Your task to perform on an android device: change the clock display to analog Image 0: 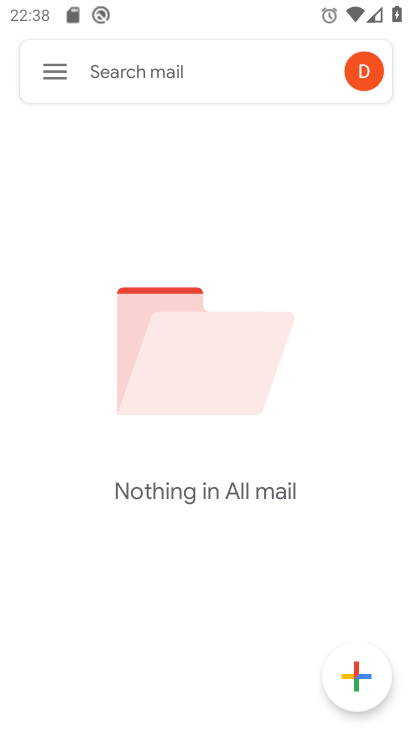
Step 0: press home button
Your task to perform on an android device: change the clock display to analog Image 1: 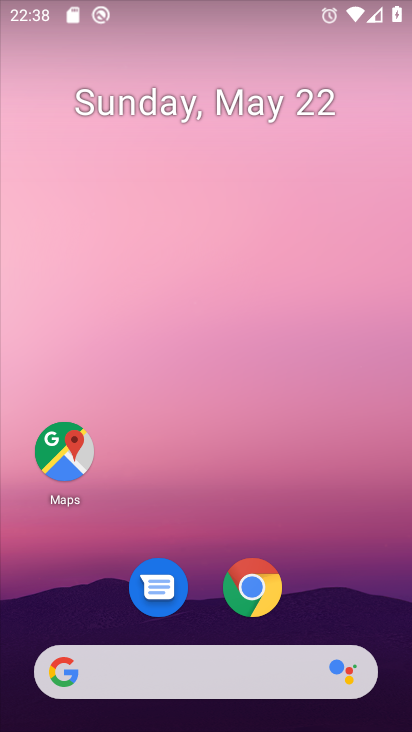
Step 1: drag from (192, 512) to (263, 46)
Your task to perform on an android device: change the clock display to analog Image 2: 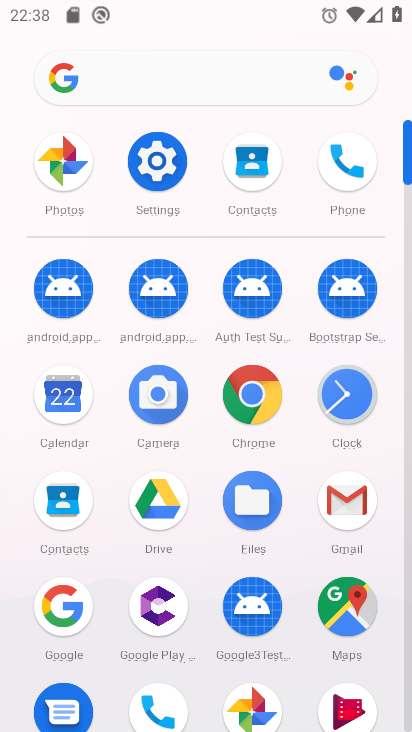
Step 2: click (352, 400)
Your task to perform on an android device: change the clock display to analog Image 3: 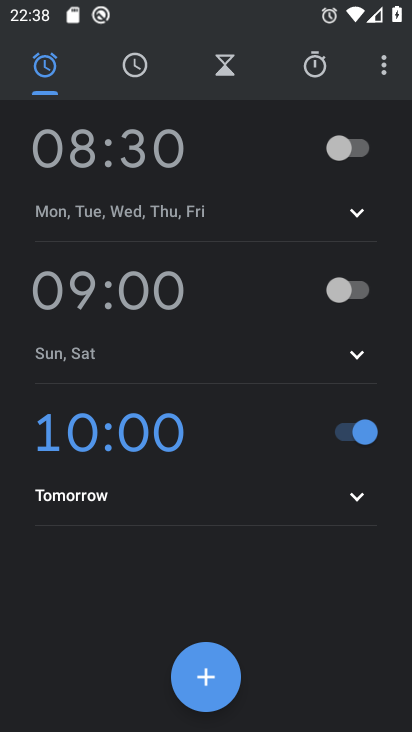
Step 3: click (131, 62)
Your task to perform on an android device: change the clock display to analog Image 4: 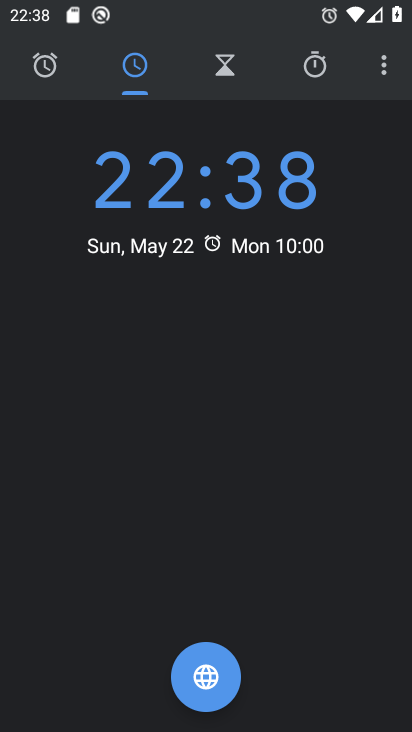
Step 4: click (381, 69)
Your task to perform on an android device: change the clock display to analog Image 5: 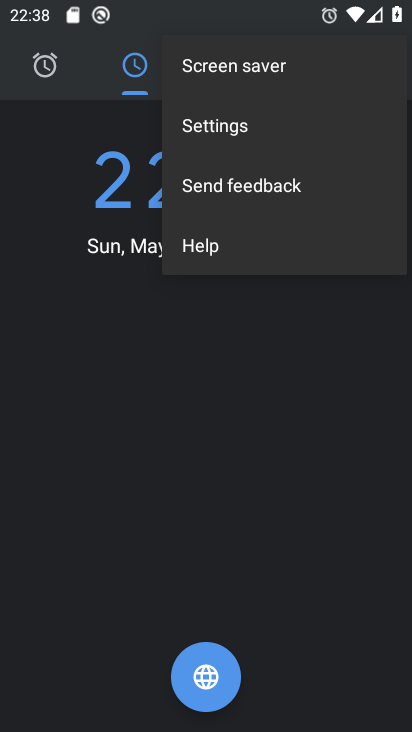
Step 5: click (311, 129)
Your task to perform on an android device: change the clock display to analog Image 6: 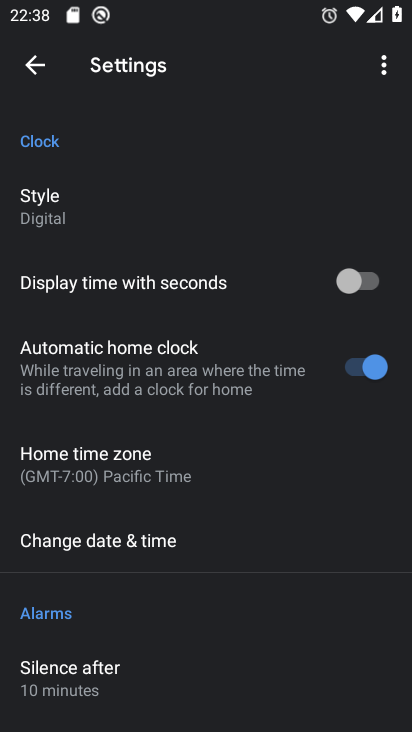
Step 6: click (124, 219)
Your task to perform on an android device: change the clock display to analog Image 7: 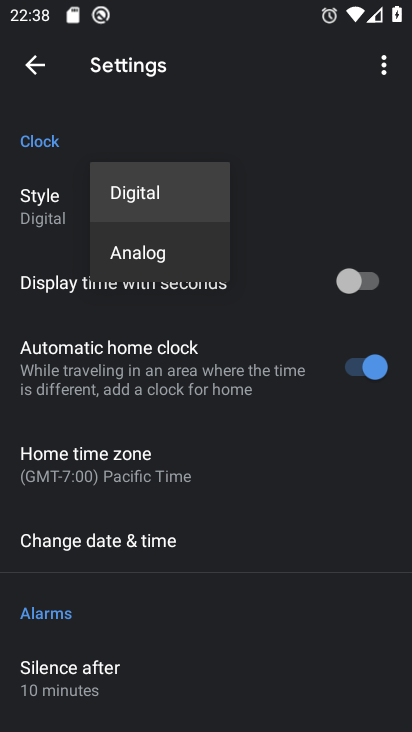
Step 7: click (151, 231)
Your task to perform on an android device: change the clock display to analog Image 8: 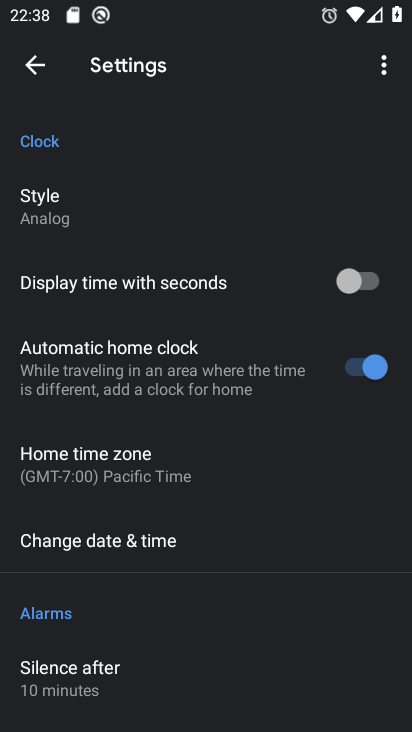
Step 8: click (35, 65)
Your task to perform on an android device: change the clock display to analog Image 9: 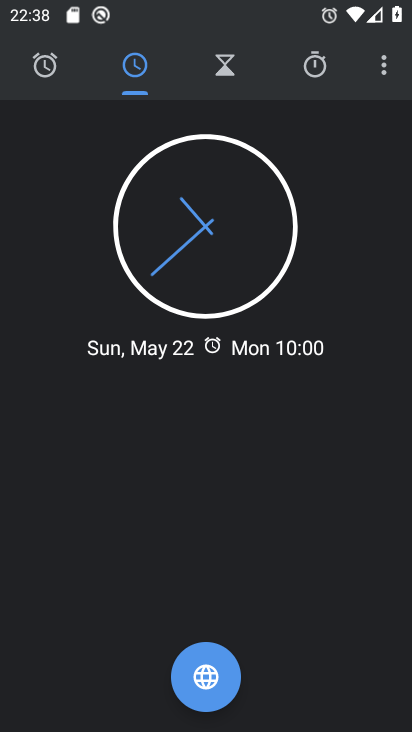
Step 9: task complete